Your task to perform on an android device: visit the assistant section in the google photos Image 0: 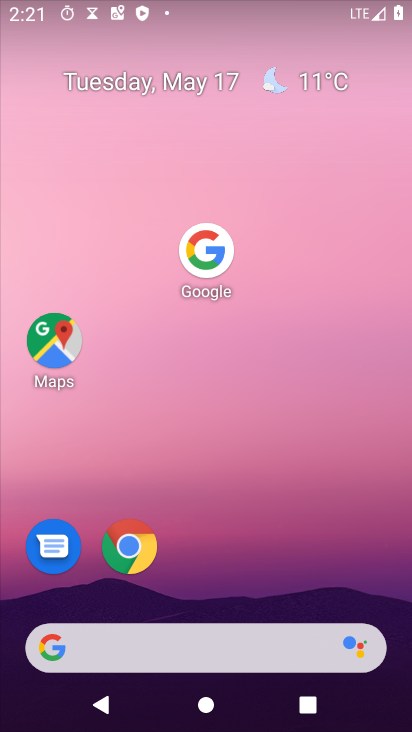
Step 0: press home button
Your task to perform on an android device: visit the assistant section in the google photos Image 1: 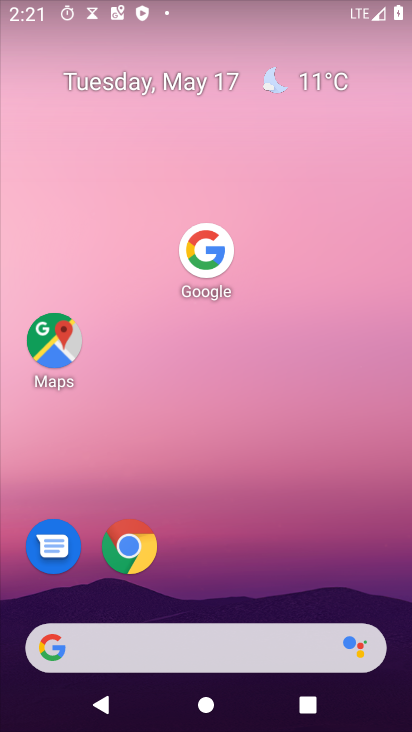
Step 1: drag from (172, 648) to (289, 120)
Your task to perform on an android device: visit the assistant section in the google photos Image 2: 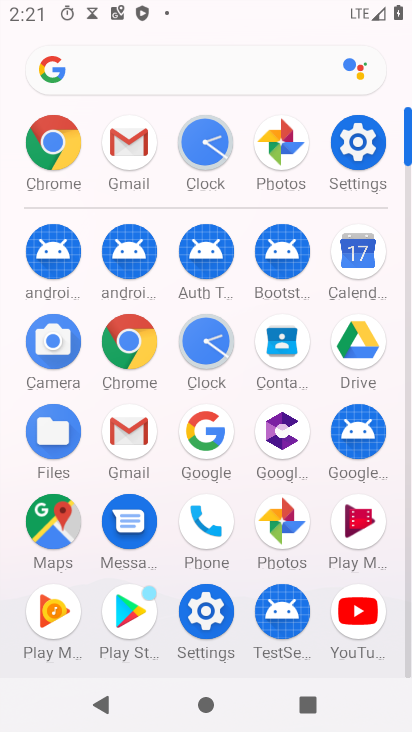
Step 2: click (281, 523)
Your task to perform on an android device: visit the assistant section in the google photos Image 3: 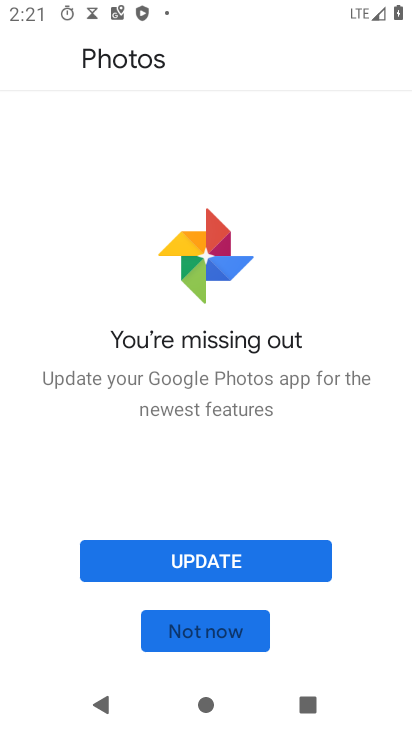
Step 3: click (211, 563)
Your task to perform on an android device: visit the assistant section in the google photos Image 4: 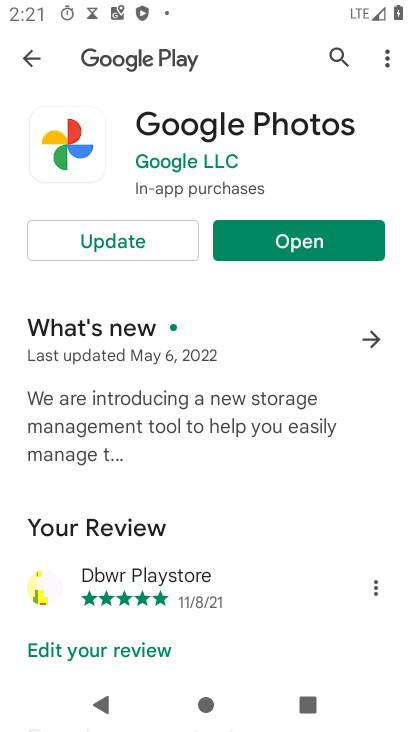
Step 4: click (294, 237)
Your task to perform on an android device: visit the assistant section in the google photos Image 5: 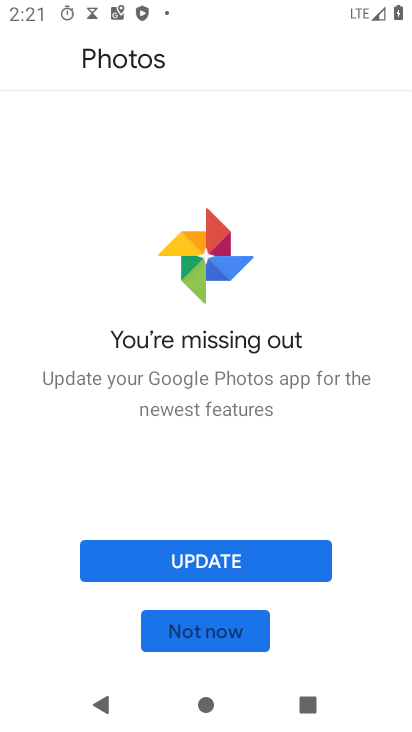
Step 5: click (200, 561)
Your task to perform on an android device: visit the assistant section in the google photos Image 6: 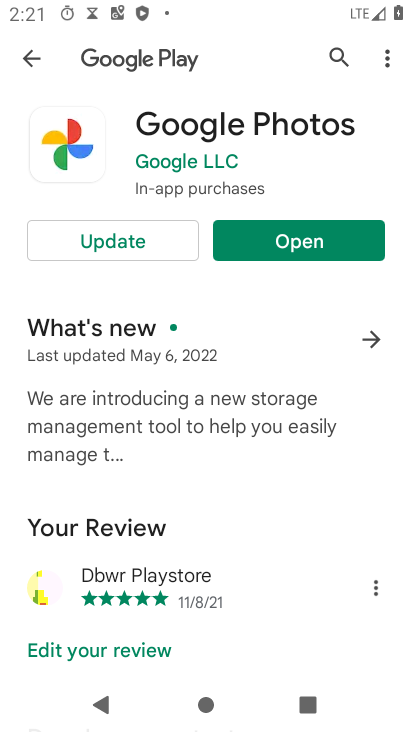
Step 6: click (128, 240)
Your task to perform on an android device: visit the assistant section in the google photos Image 7: 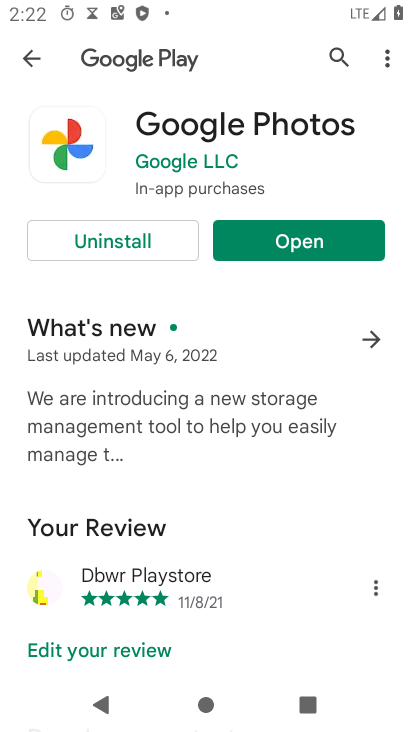
Step 7: click (291, 239)
Your task to perform on an android device: visit the assistant section in the google photos Image 8: 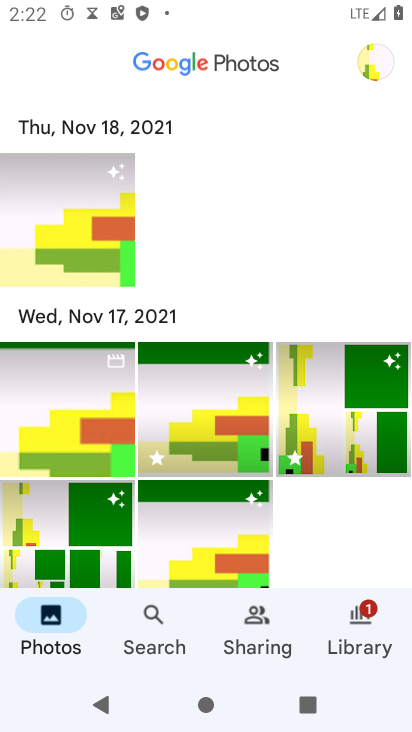
Step 8: click (245, 648)
Your task to perform on an android device: visit the assistant section in the google photos Image 9: 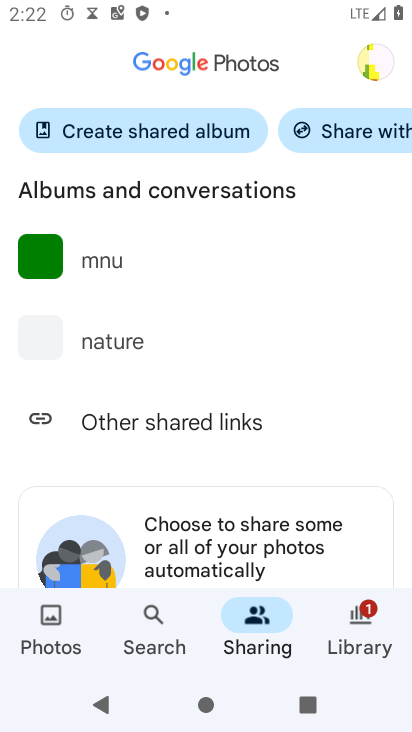
Step 9: click (166, 638)
Your task to perform on an android device: visit the assistant section in the google photos Image 10: 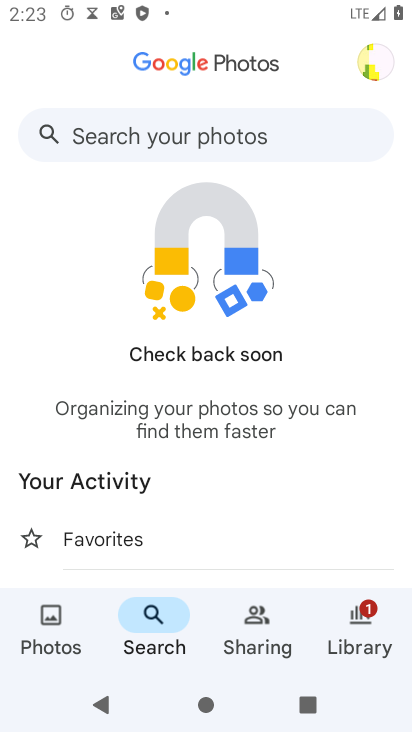
Step 10: task complete